Your task to perform on an android device: Open display settings Image 0: 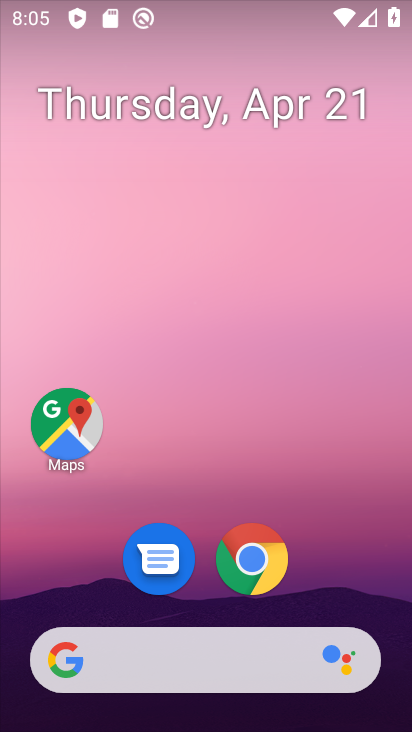
Step 0: drag from (188, 627) to (272, 124)
Your task to perform on an android device: Open display settings Image 1: 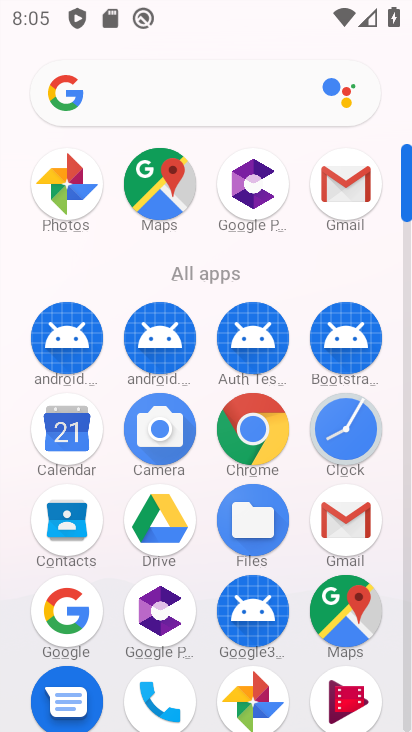
Step 1: drag from (242, 593) to (320, 307)
Your task to perform on an android device: Open display settings Image 2: 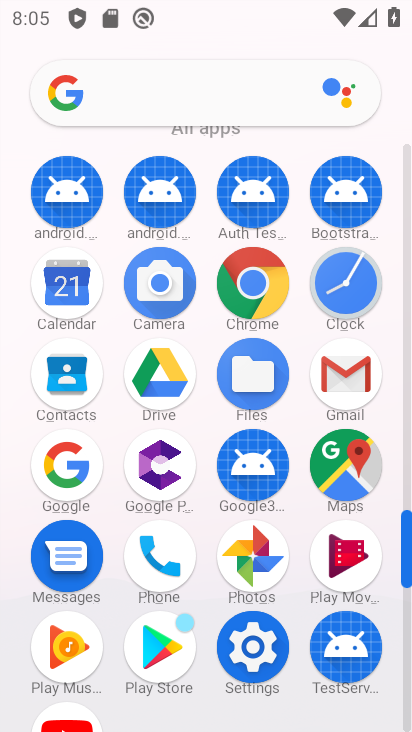
Step 2: click (264, 652)
Your task to perform on an android device: Open display settings Image 3: 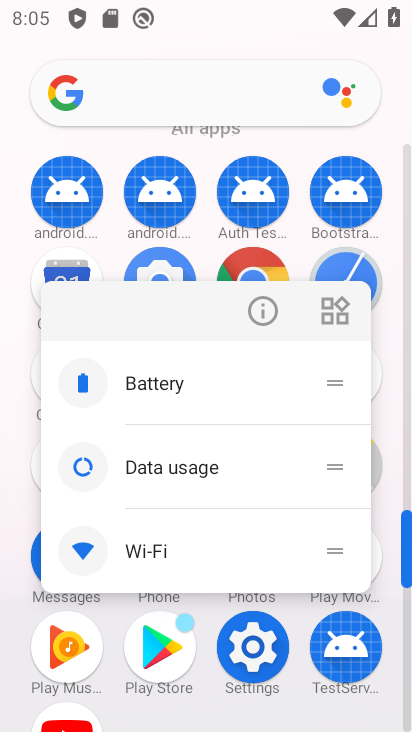
Step 3: click (260, 644)
Your task to perform on an android device: Open display settings Image 4: 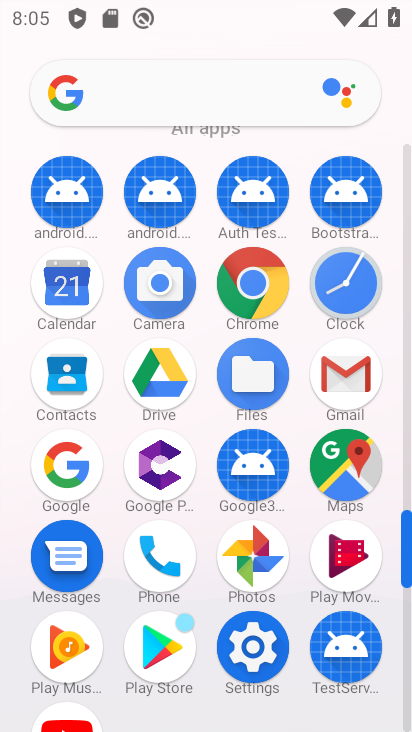
Step 4: click (252, 654)
Your task to perform on an android device: Open display settings Image 5: 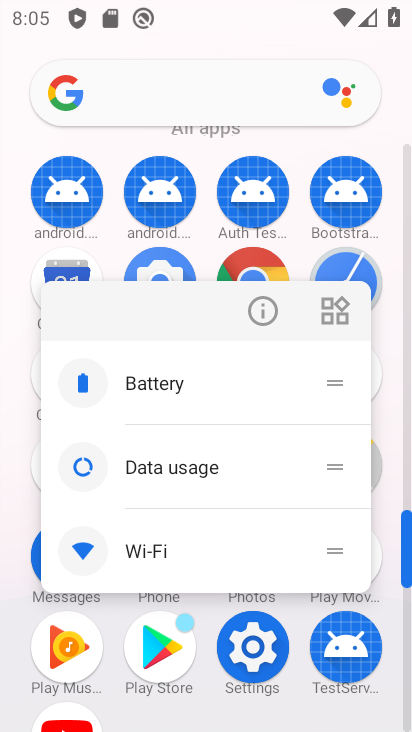
Step 5: click (268, 657)
Your task to perform on an android device: Open display settings Image 6: 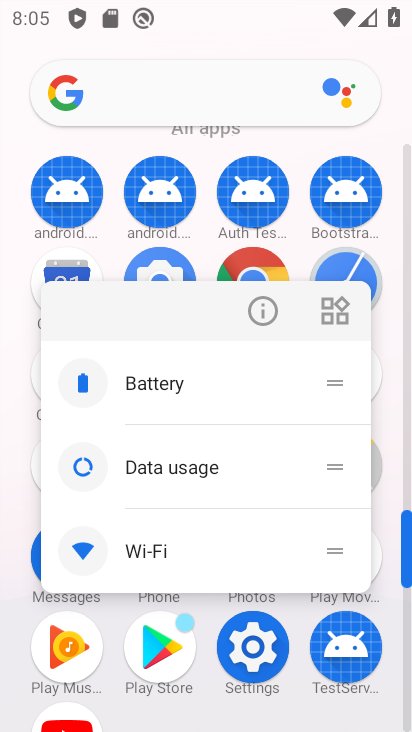
Step 6: click (263, 657)
Your task to perform on an android device: Open display settings Image 7: 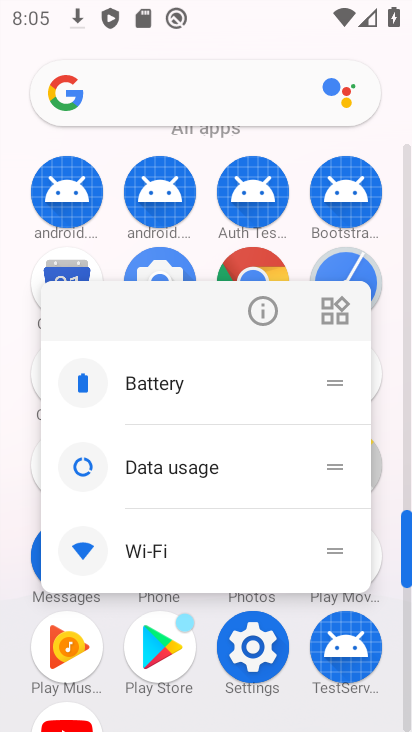
Step 7: click (255, 641)
Your task to perform on an android device: Open display settings Image 8: 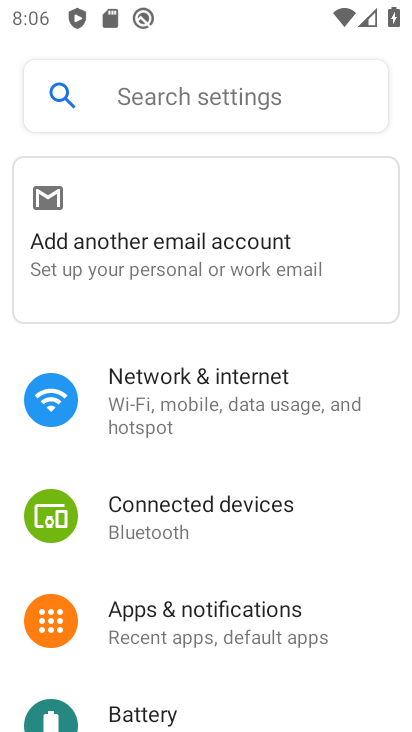
Step 8: drag from (199, 647) to (296, 340)
Your task to perform on an android device: Open display settings Image 9: 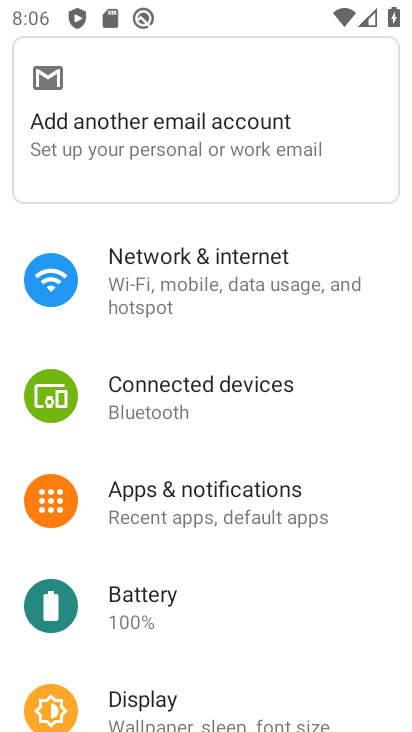
Step 9: click (166, 696)
Your task to perform on an android device: Open display settings Image 10: 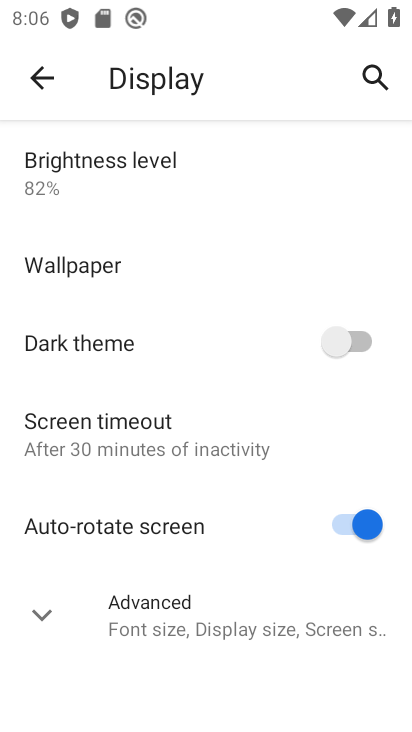
Step 10: task complete